Your task to perform on an android device: check battery use Image 0: 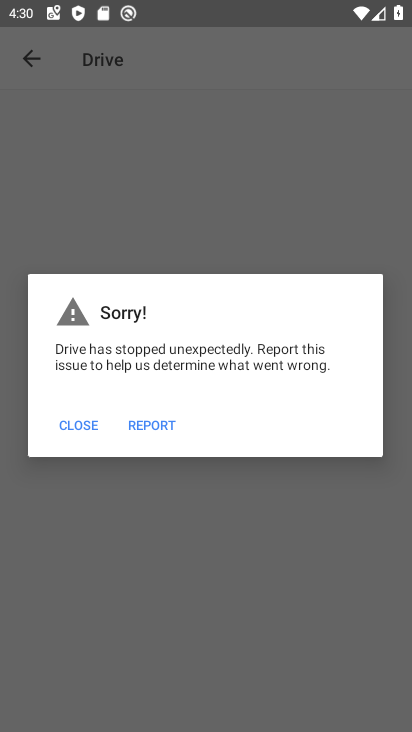
Step 0: press home button
Your task to perform on an android device: check battery use Image 1: 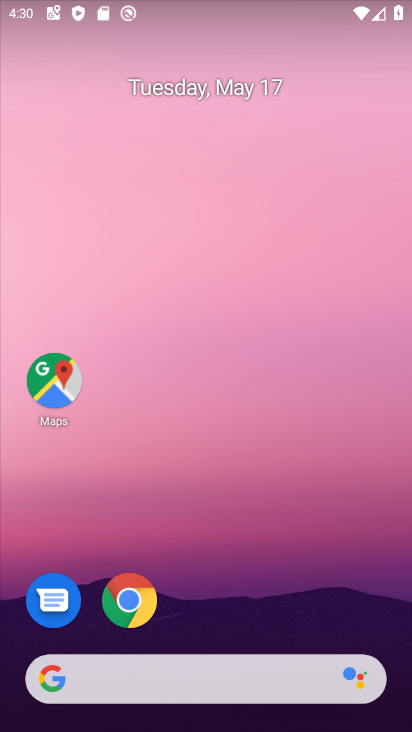
Step 1: drag from (237, 597) to (299, 0)
Your task to perform on an android device: check battery use Image 2: 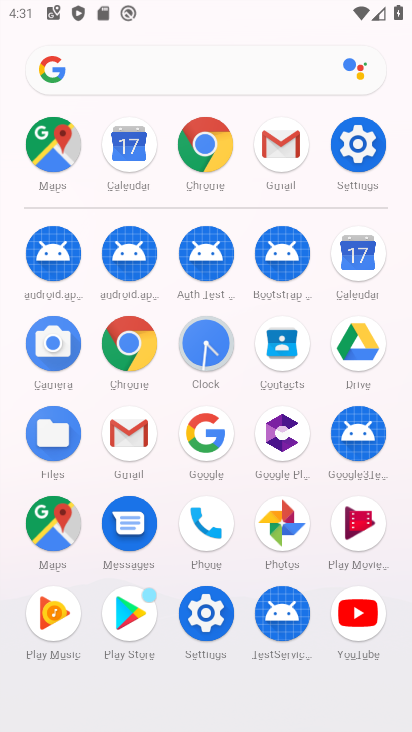
Step 2: click (199, 614)
Your task to perform on an android device: check battery use Image 3: 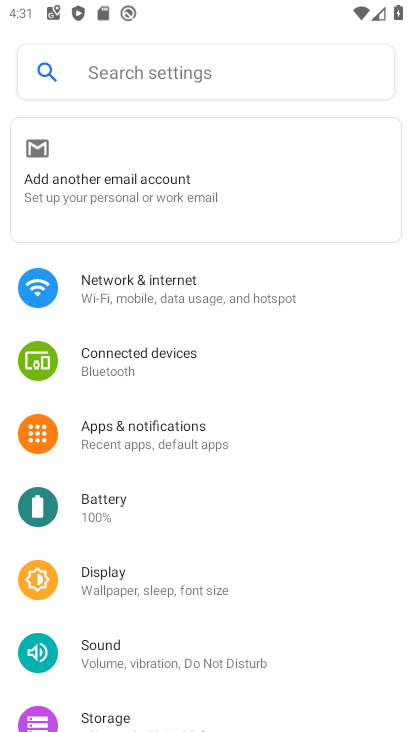
Step 3: click (117, 508)
Your task to perform on an android device: check battery use Image 4: 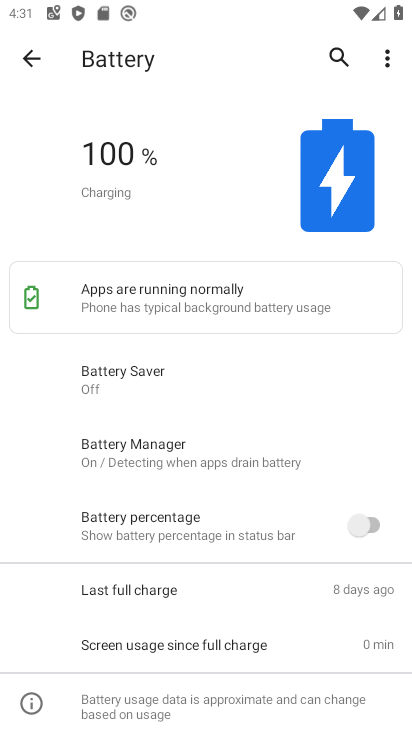
Step 4: click (385, 65)
Your task to perform on an android device: check battery use Image 5: 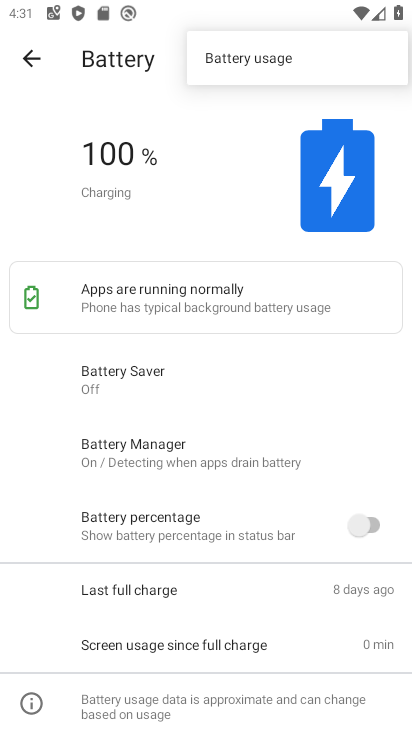
Step 5: click (272, 61)
Your task to perform on an android device: check battery use Image 6: 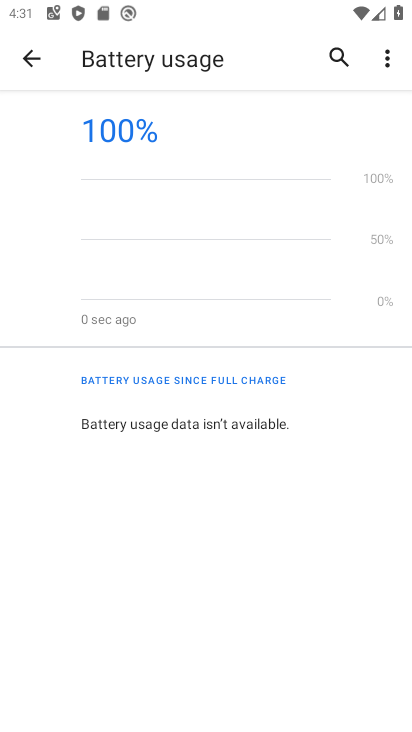
Step 6: task complete